Your task to perform on an android device: turn off airplane mode Image 0: 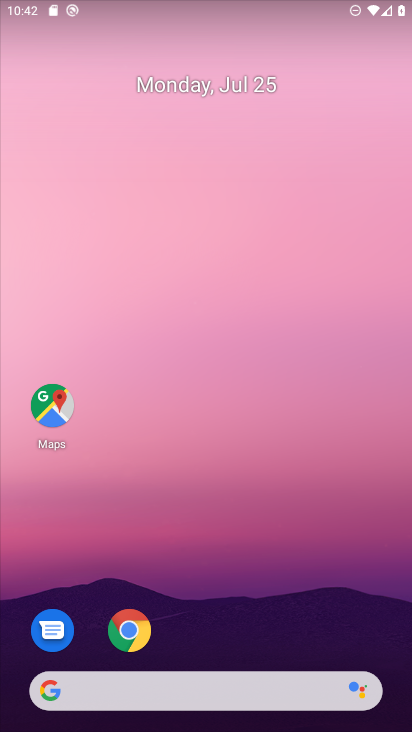
Step 0: drag from (327, 598) to (269, 89)
Your task to perform on an android device: turn off airplane mode Image 1: 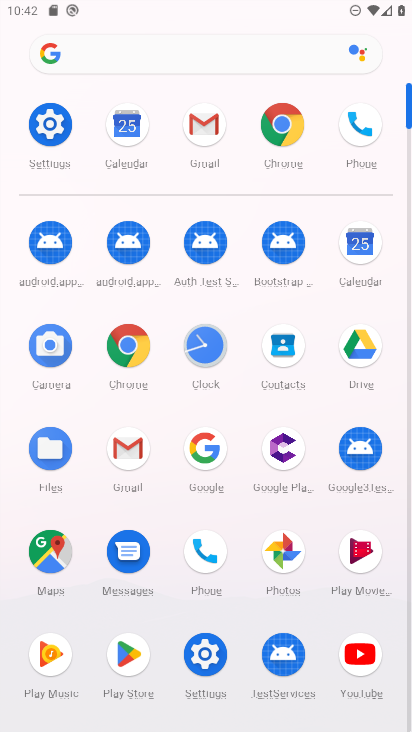
Step 1: click (59, 120)
Your task to perform on an android device: turn off airplane mode Image 2: 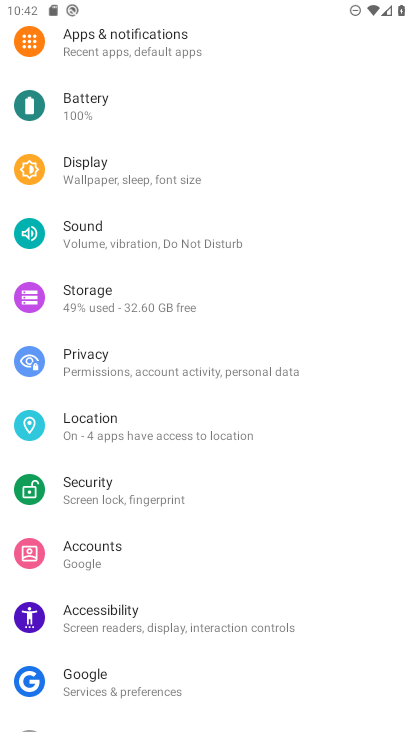
Step 2: drag from (159, 140) to (213, 616)
Your task to perform on an android device: turn off airplane mode Image 3: 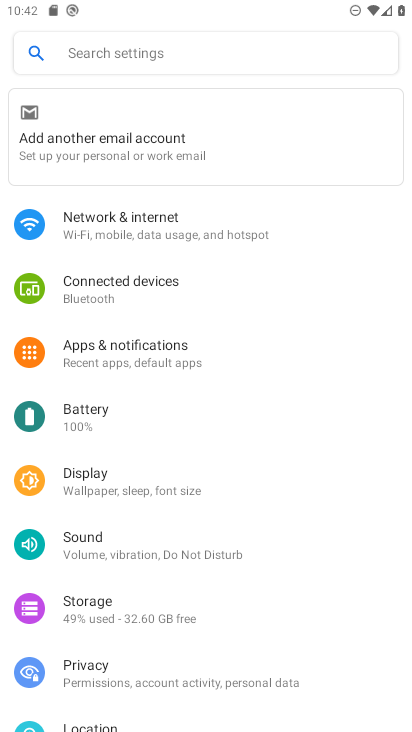
Step 3: click (157, 227)
Your task to perform on an android device: turn off airplane mode Image 4: 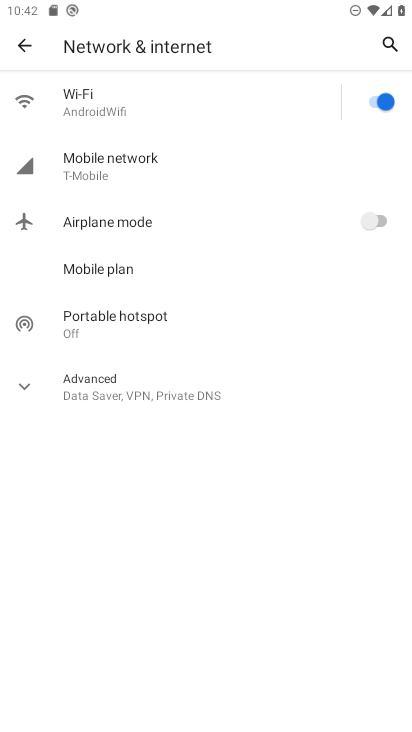
Step 4: task complete